Your task to perform on an android device: toggle javascript in the chrome app Image 0: 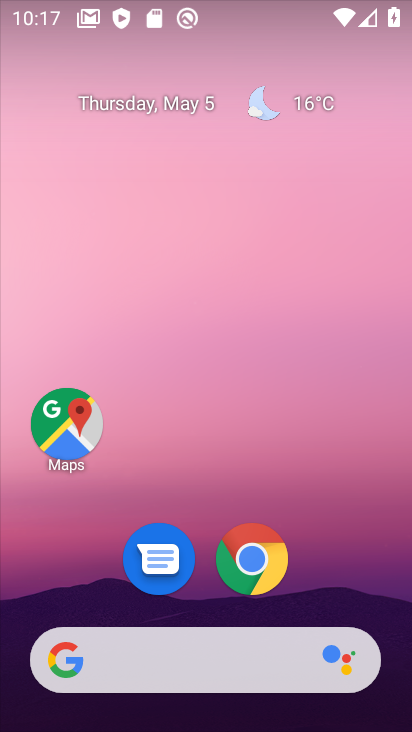
Step 0: click (242, 561)
Your task to perform on an android device: toggle javascript in the chrome app Image 1: 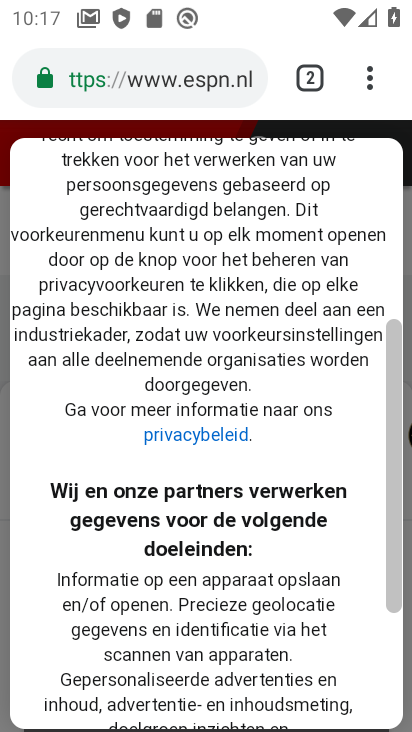
Step 1: click (371, 101)
Your task to perform on an android device: toggle javascript in the chrome app Image 2: 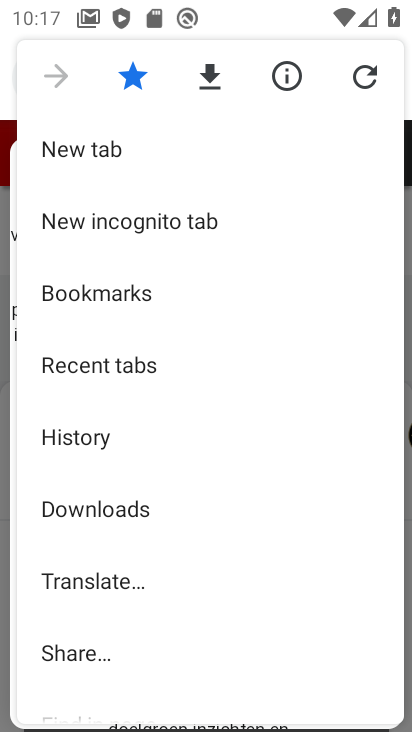
Step 2: drag from (285, 699) to (295, 202)
Your task to perform on an android device: toggle javascript in the chrome app Image 3: 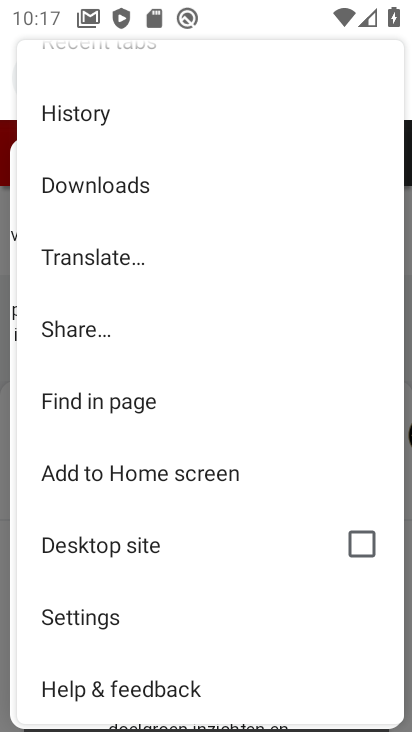
Step 3: click (272, 621)
Your task to perform on an android device: toggle javascript in the chrome app Image 4: 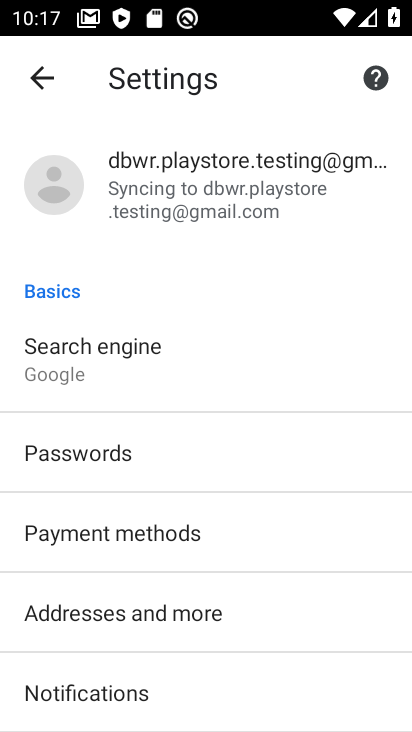
Step 4: drag from (296, 659) to (230, 282)
Your task to perform on an android device: toggle javascript in the chrome app Image 5: 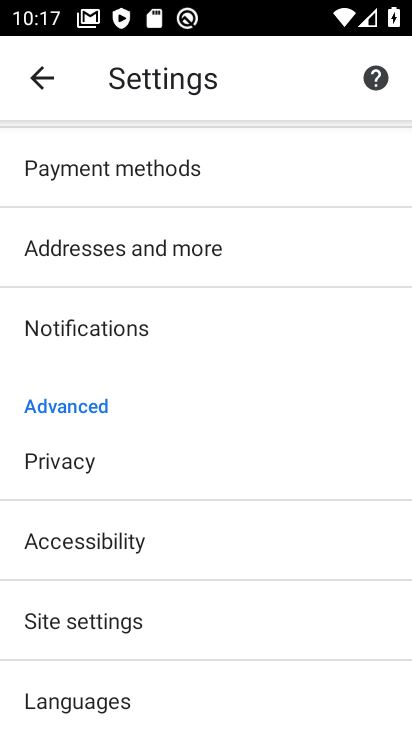
Step 5: click (298, 629)
Your task to perform on an android device: toggle javascript in the chrome app Image 6: 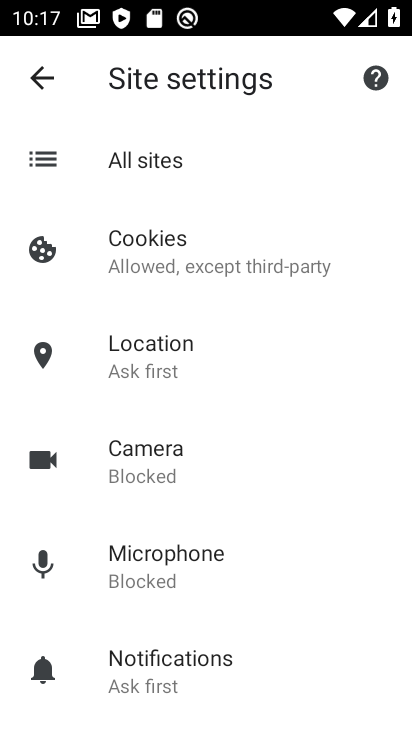
Step 6: drag from (298, 629) to (263, 253)
Your task to perform on an android device: toggle javascript in the chrome app Image 7: 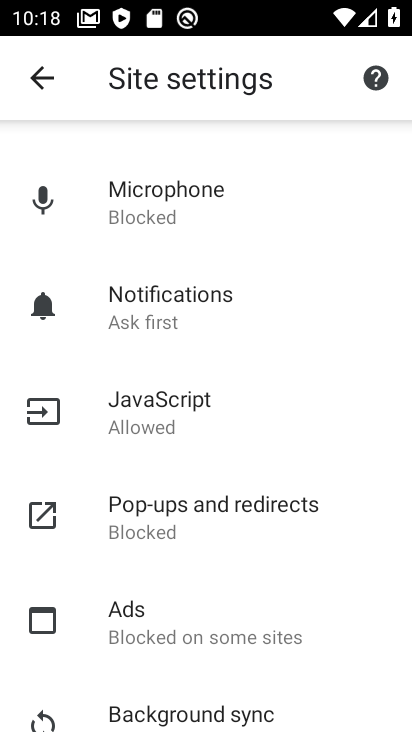
Step 7: click (276, 399)
Your task to perform on an android device: toggle javascript in the chrome app Image 8: 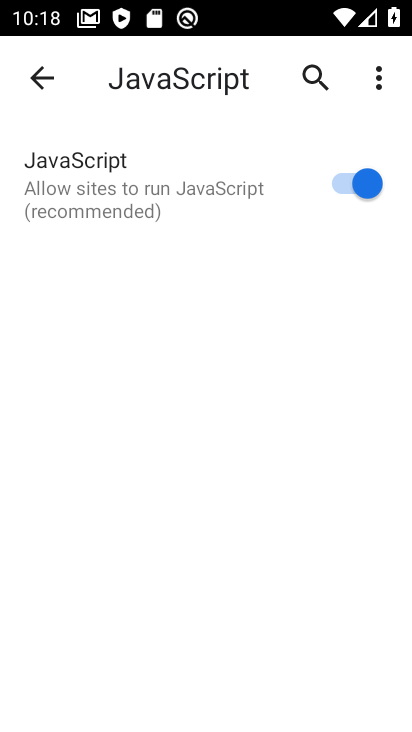
Step 8: click (345, 184)
Your task to perform on an android device: toggle javascript in the chrome app Image 9: 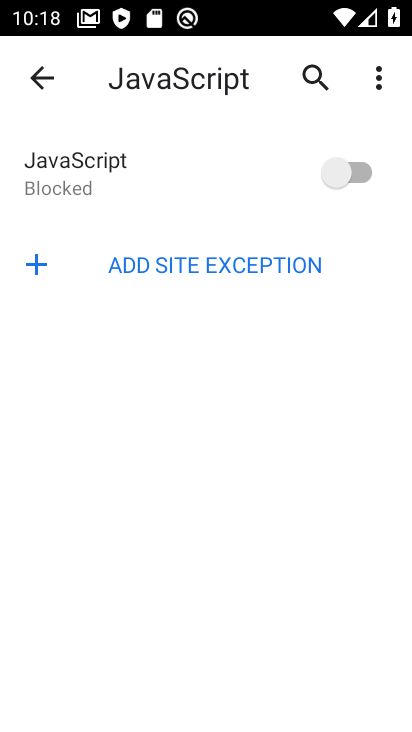
Step 9: task complete